Your task to perform on an android device: Open sound settings Image 0: 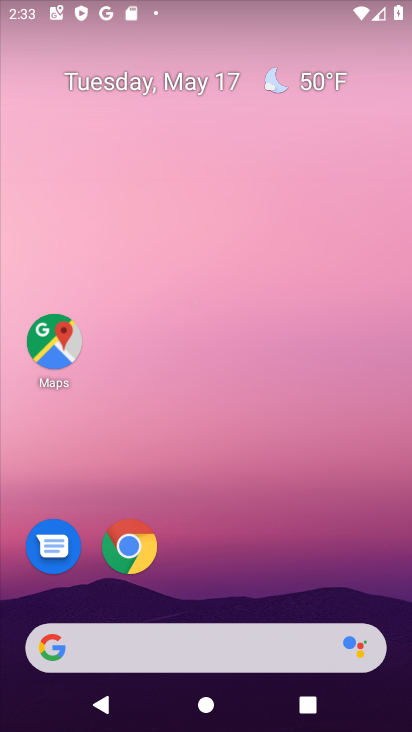
Step 0: drag from (237, 563) to (307, 0)
Your task to perform on an android device: Open sound settings Image 1: 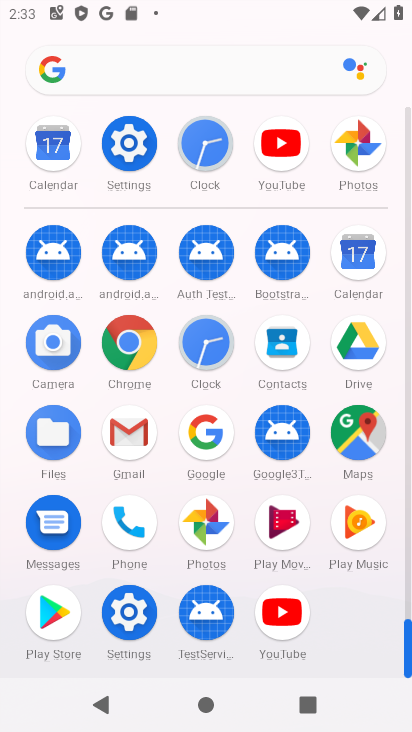
Step 1: click (124, 162)
Your task to perform on an android device: Open sound settings Image 2: 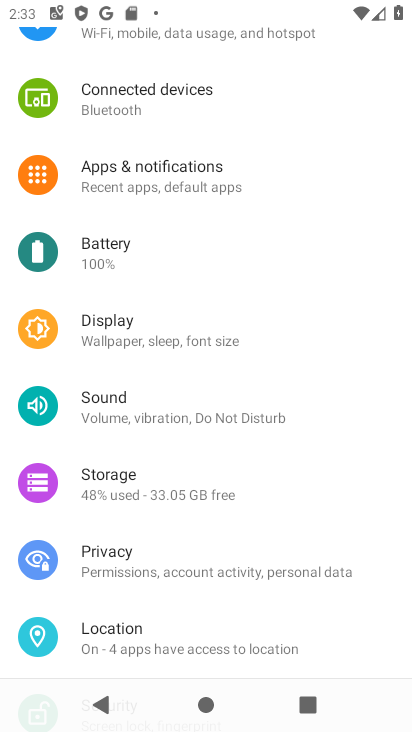
Step 2: click (129, 419)
Your task to perform on an android device: Open sound settings Image 3: 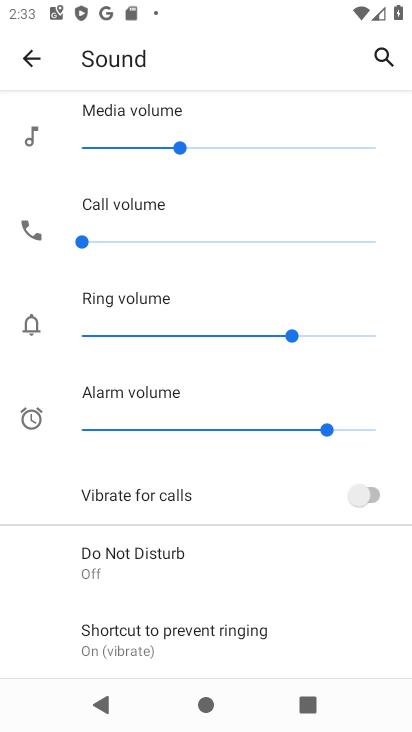
Step 3: task complete